Your task to perform on an android device: Show me popular videos on Youtube Image 0: 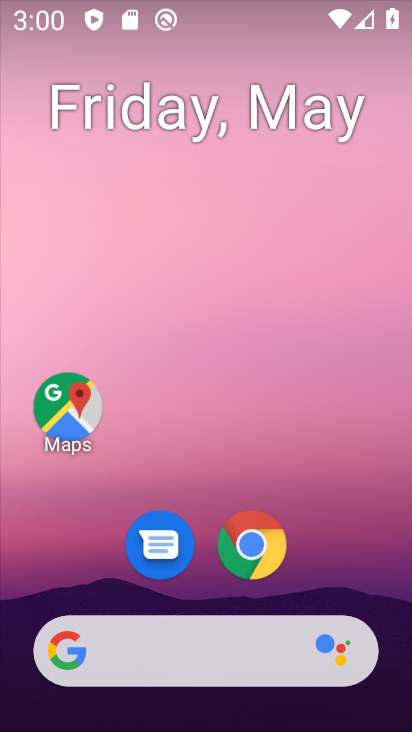
Step 0: drag from (362, 543) to (305, 37)
Your task to perform on an android device: Show me popular videos on Youtube Image 1: 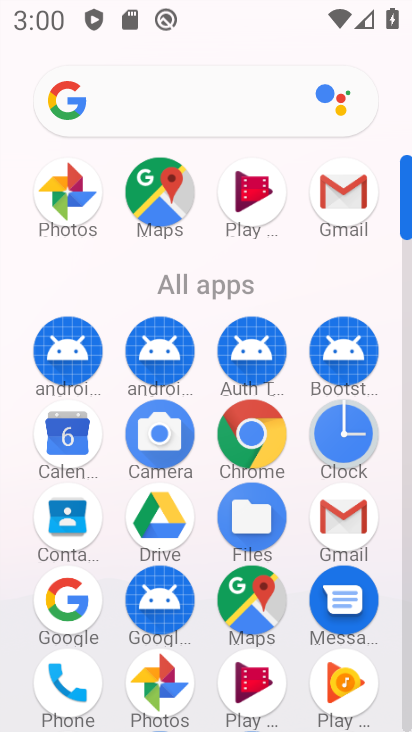
Step 1: drag from (263, 581) to (324, 95)
Your task to perform on an android device: Show me popular videos on Youtube Image 2: 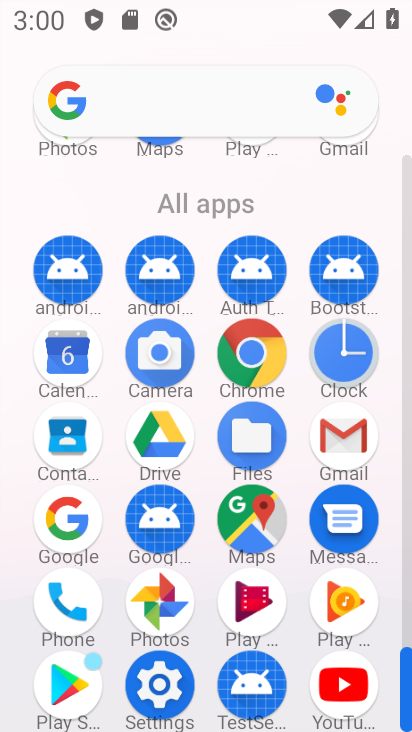
Step 2: click (335, 698)
Your task to perform on an android device: Show me popular videos on Youtube Image 3: 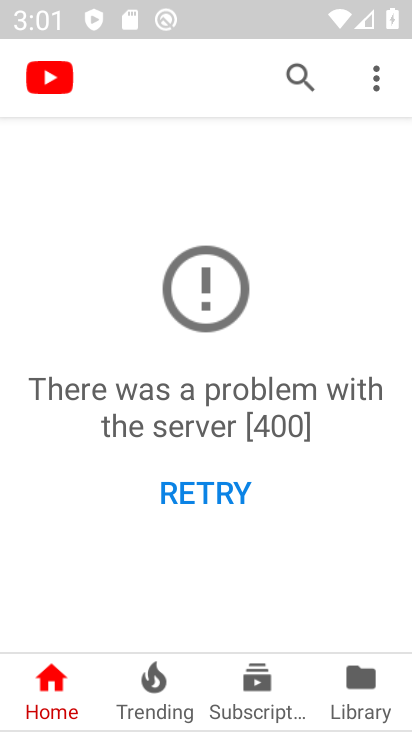
Step 3: click (143, 701)
Your task to perform on an android device: Show me popular videos on Youtube Image 4: 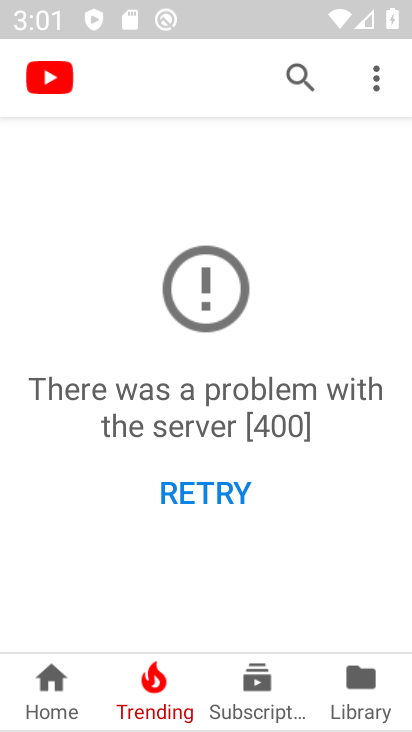
Step 4: click (54, 688)
Your task to perform on an android device: Show me popular videos on Youtube Image 5: 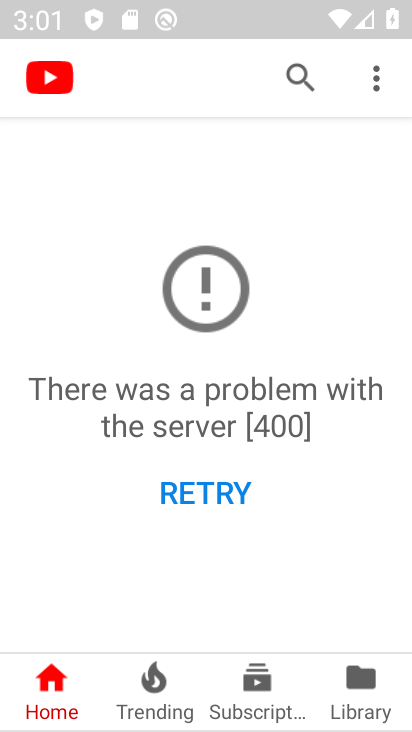
Step 5: task complete